Your task to perform on an android device: turn on javascript in the chrome app Image 0: 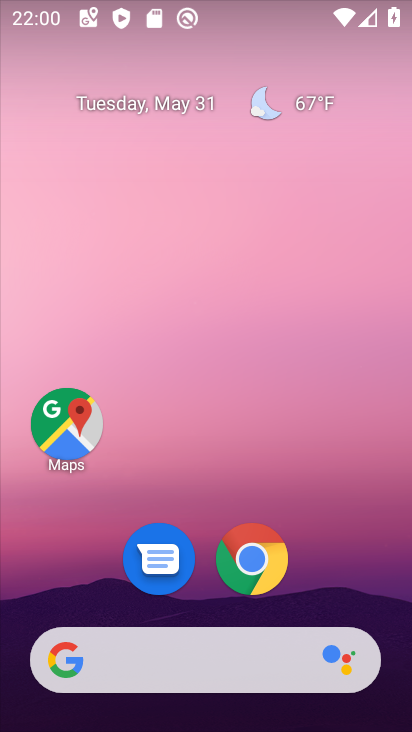
Step 0: click (251, 564)
Your task to perform on an android device: turn on javascript in the chrome app Image 1: 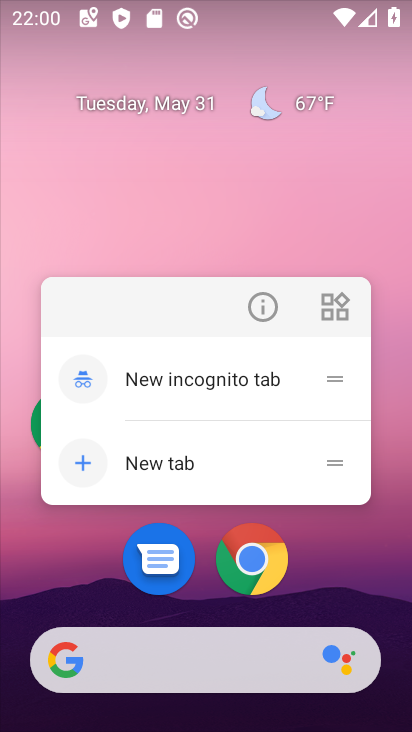
Step 1: click (251, 564)
Your task to perform on an android device: turn on javascript in the chrome app Image 2: 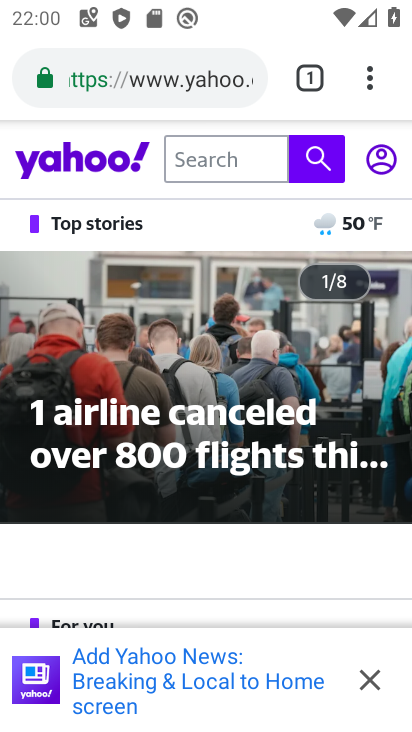
Step 2: click (366, 77)
Your task to perform on an android device: turn on javascript in the chrome app Image 3: 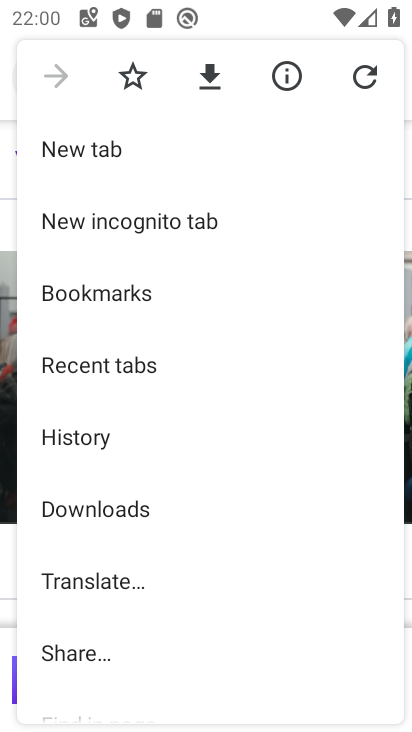
Step 3: drag from (230, 597) to (236, 149)
Your task to perform on an android device: turn on javascript in the chrome app Image 4: 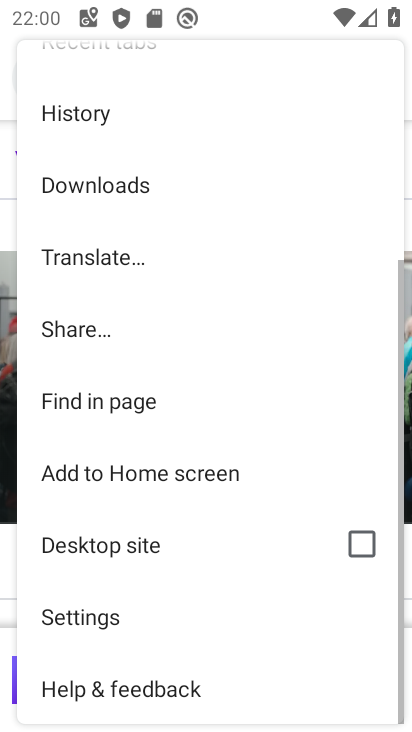
Step 4: click (57, 623)
Your task to perform on an android device: turn on javascript in the chrome app Image 5: 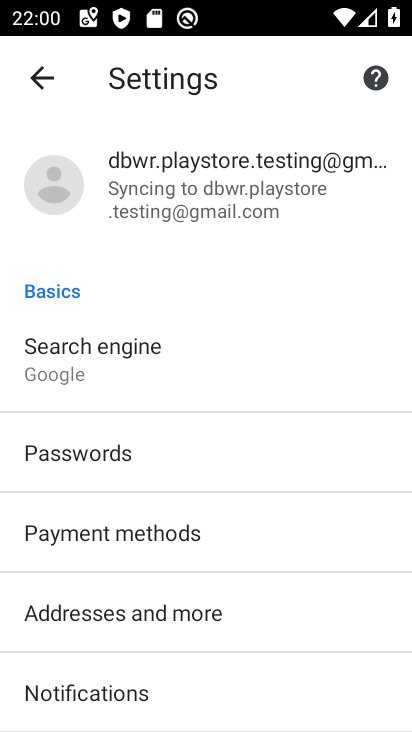
Step 5: drag from (196, 655) to (236, 161)
Your task to perform on an android device: turn on javascript in the chrome app Image 6: 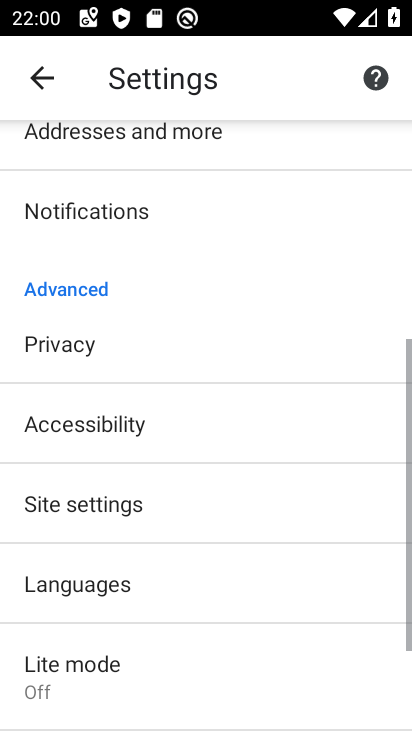
Step 6: click (103, 512)
Your task to perform on an android device: turn on javascript in the chrome app Image 7: 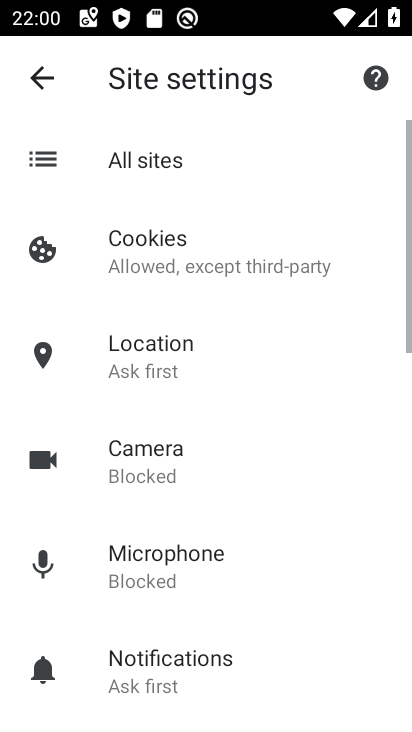
Step 7: drag from (229, 662) to (245, 143)
Your task to perform on an android device: turn on javascript in the chrome app Image 8: 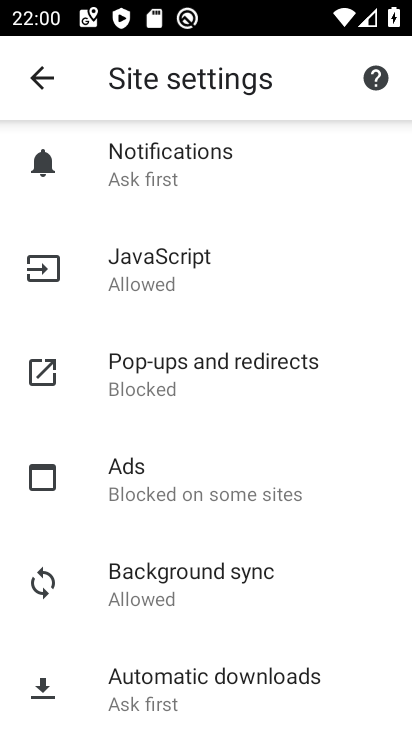
Step 8: click (181, 273)
Your task to perform on an android device: turn on javascript in the chrome app Image 9: 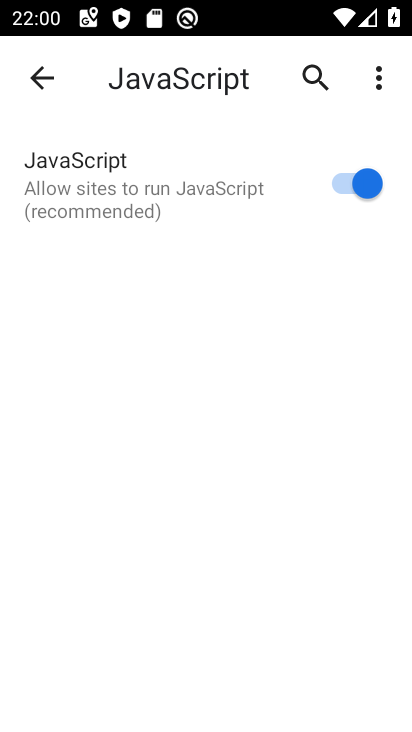
Step 9: task complete